Your task to perform on an android device: toggle show notifications on the lock screen Image 0: 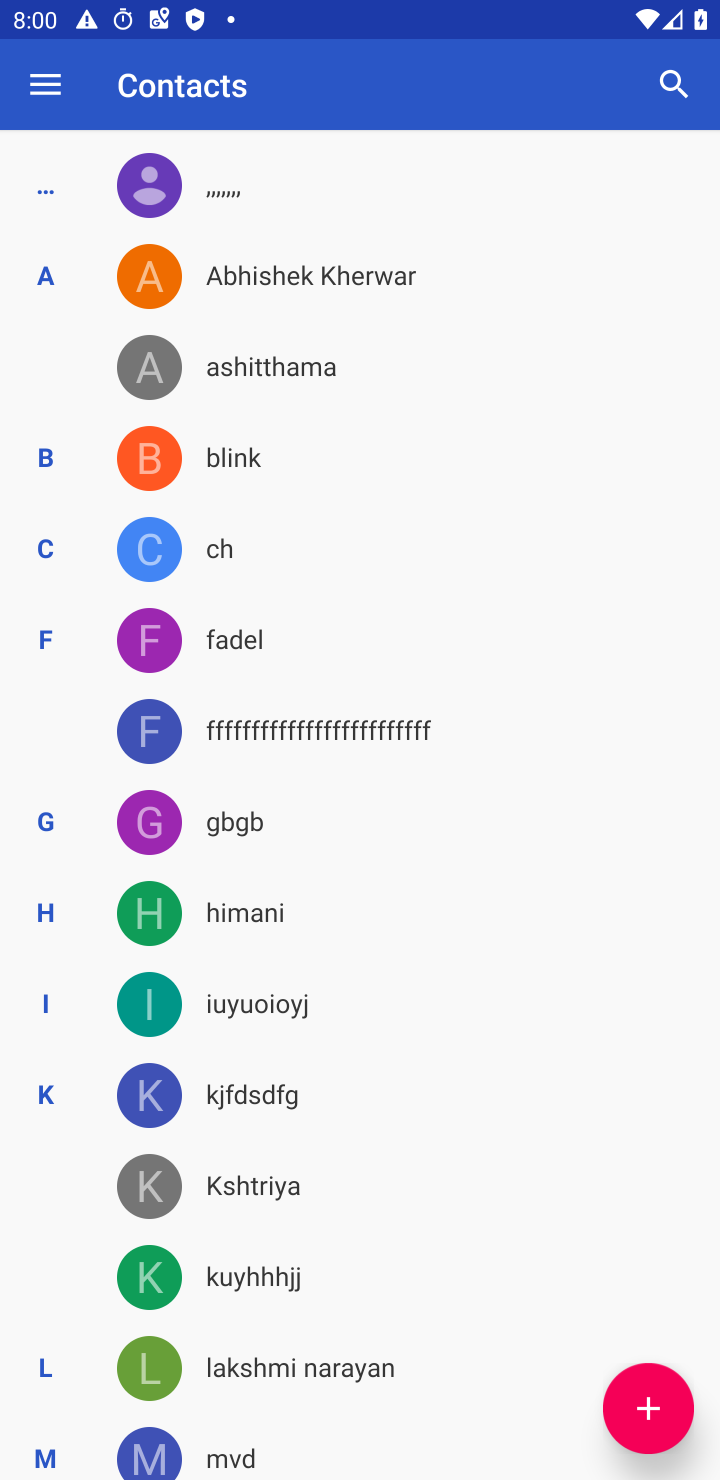
Step 0: press home button
Your task to perform on an android device: toggle show notifications on the lock screen Image 1: 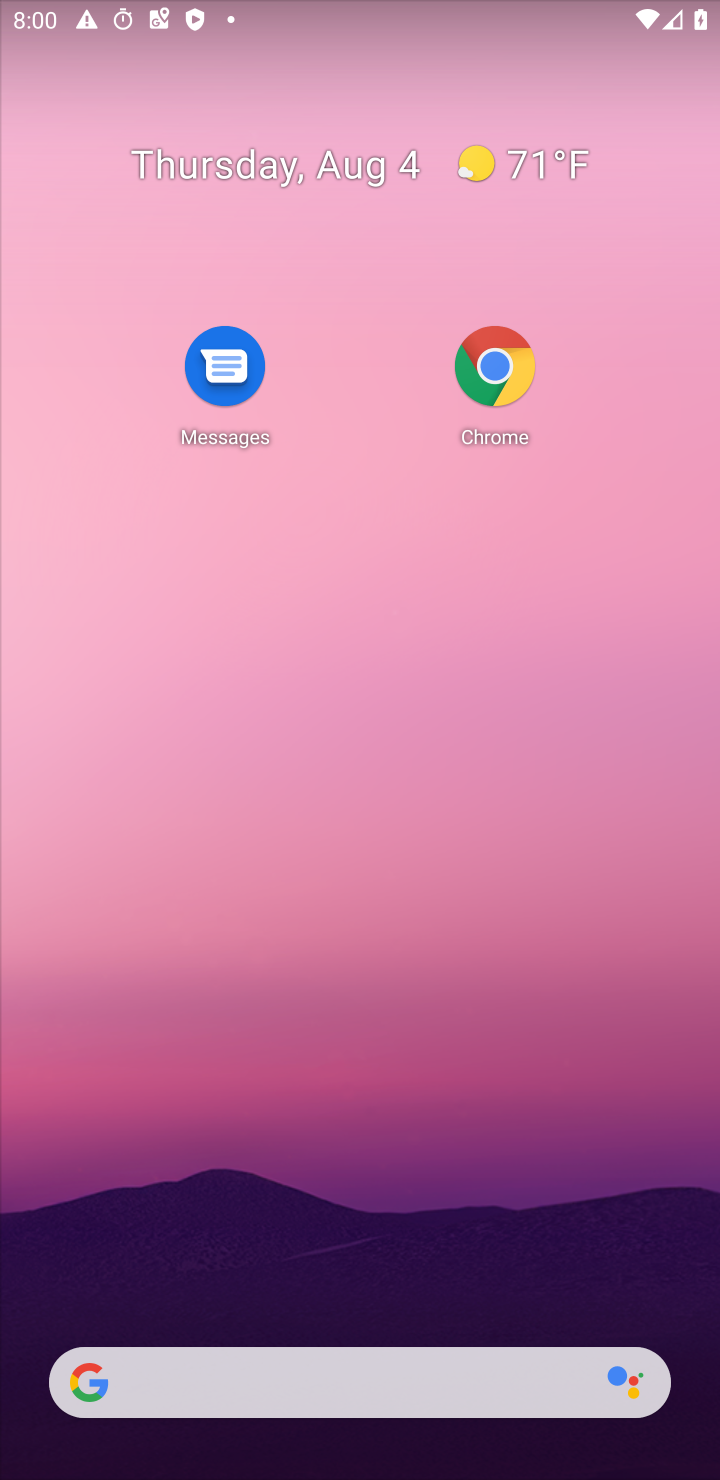
Step 1: drag from (468, 1413) to (445, 277)
Your task to perform on an android device: toggle show notifications on the lock screen Image 2: 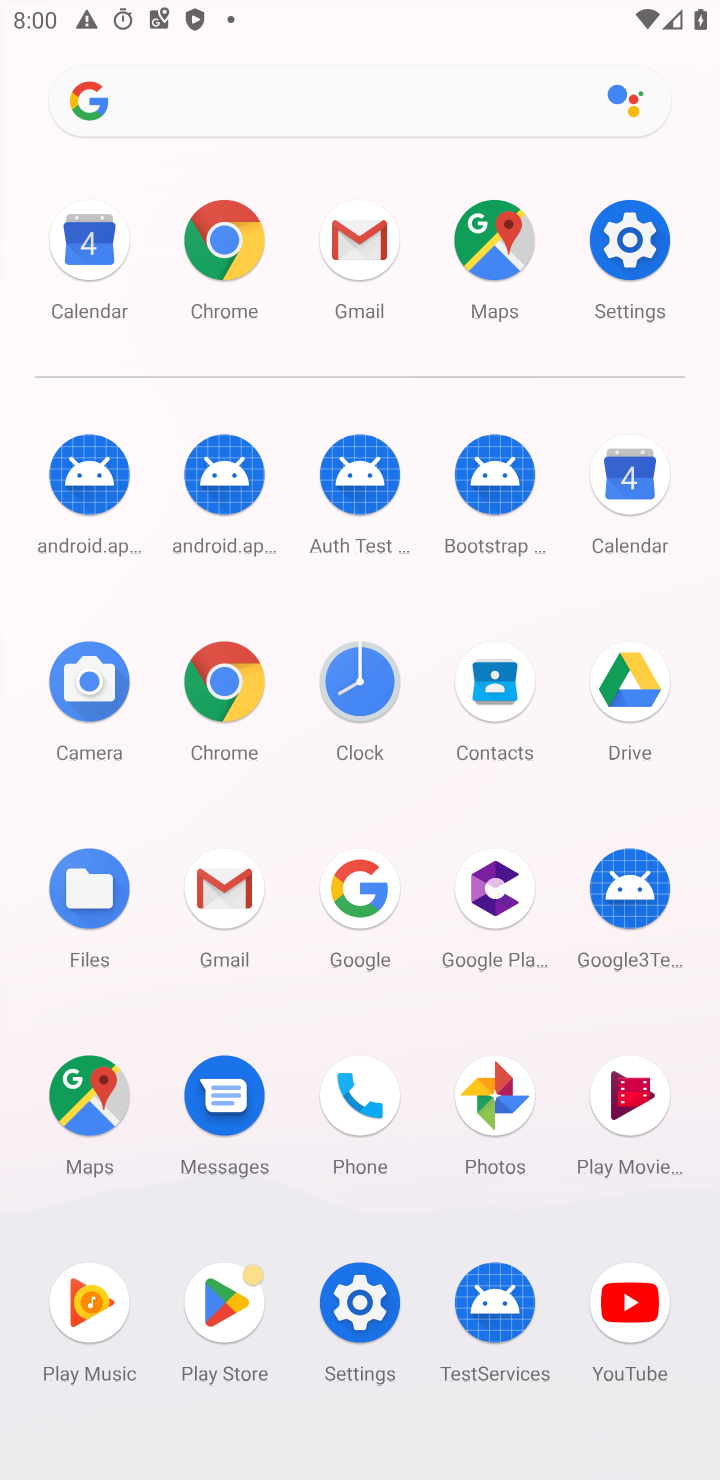
Step 2: click (348, 1290)
Your task to perform on an android device: toggle show notifications on the lock screen Image 3: 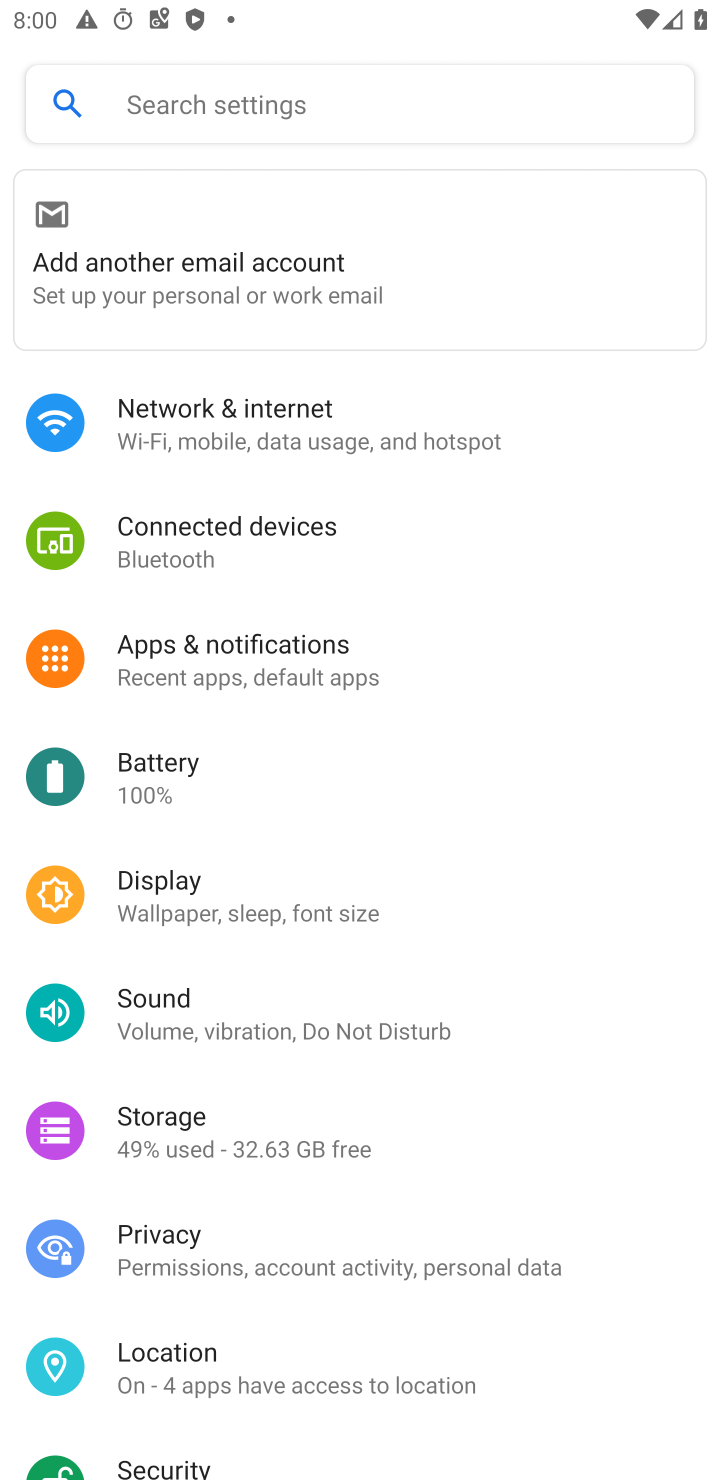
Step 3: click (214, 106)
Your task to perform on an android device: toggle show notifications on the lock screen Image 4: 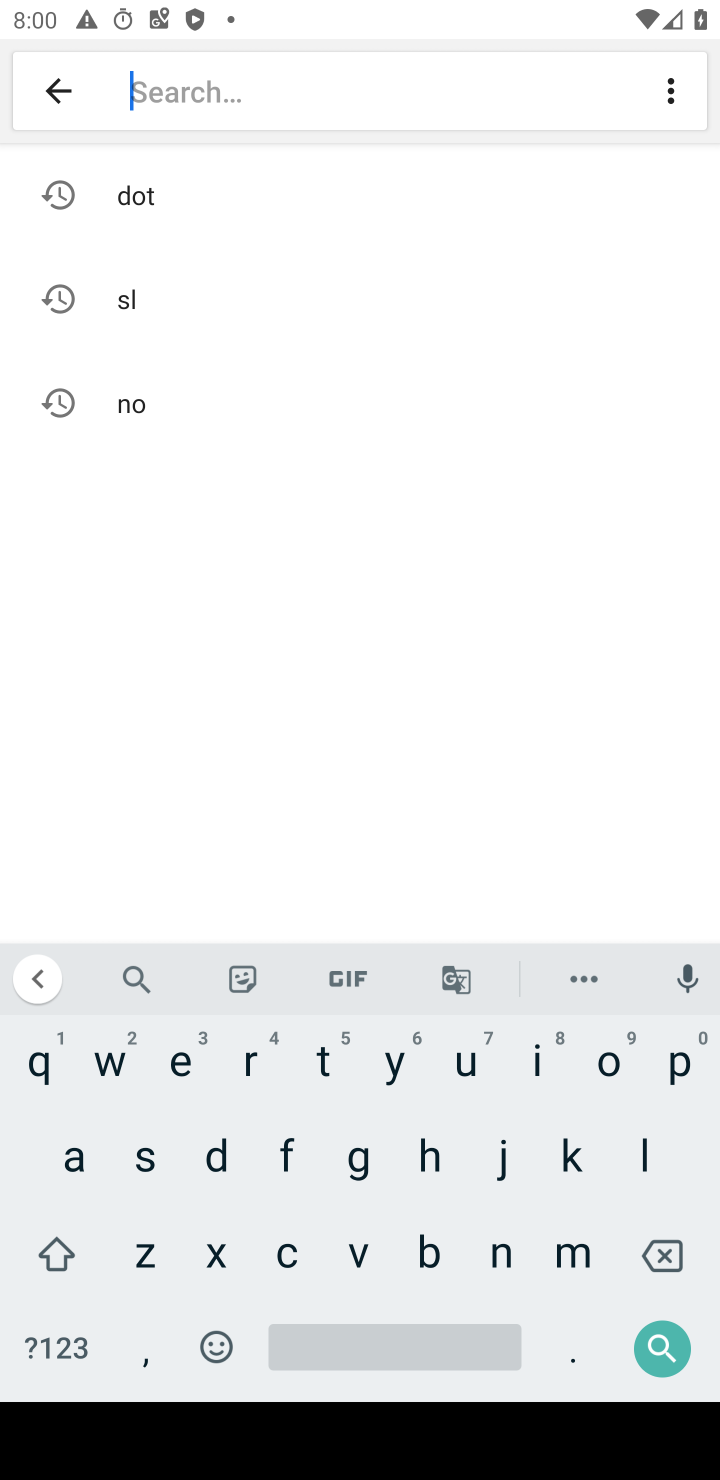
Step 4: click (192, 385)
Your task to perform on an android device: toggle show notifications on the lock screen Image 5: 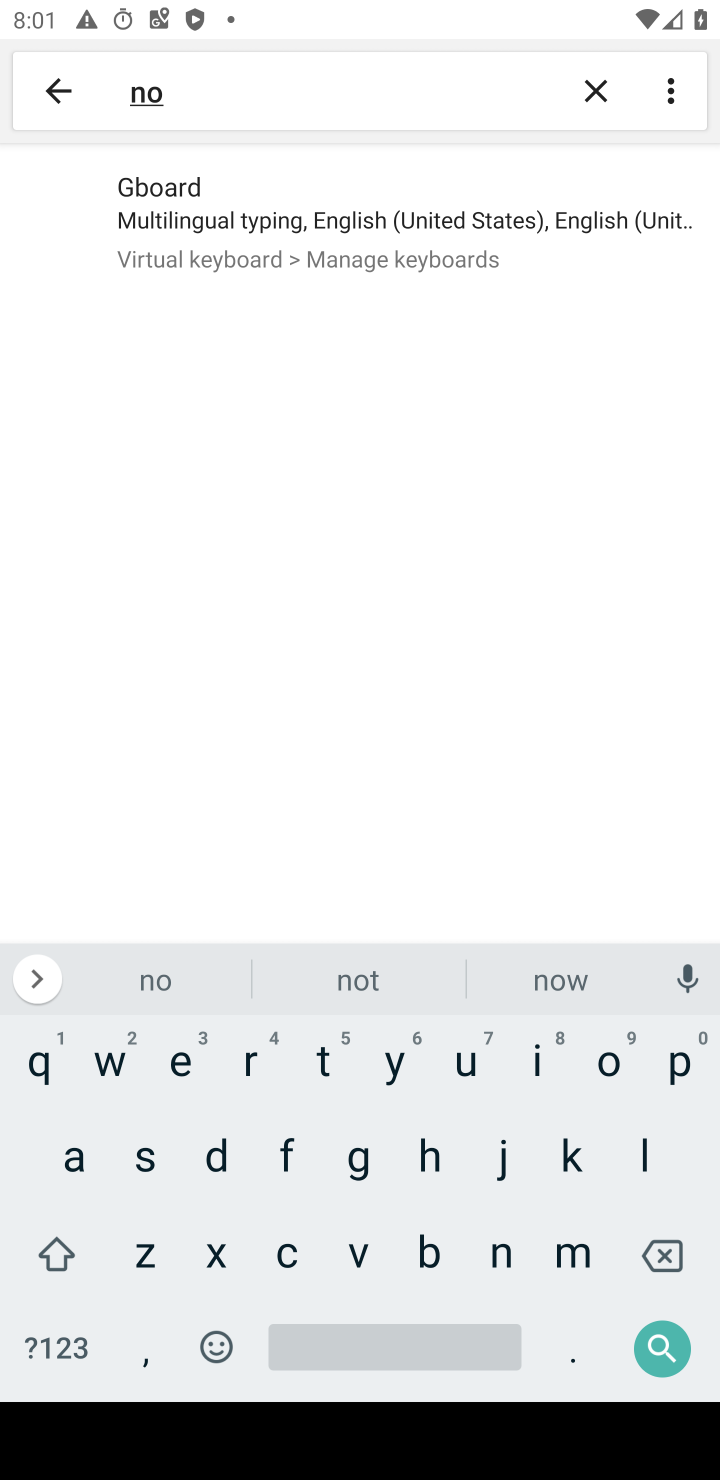
Step 5: click (332, 1067)
Your task to perform on an android device: toggle show notifications on the lock screen Image 6: 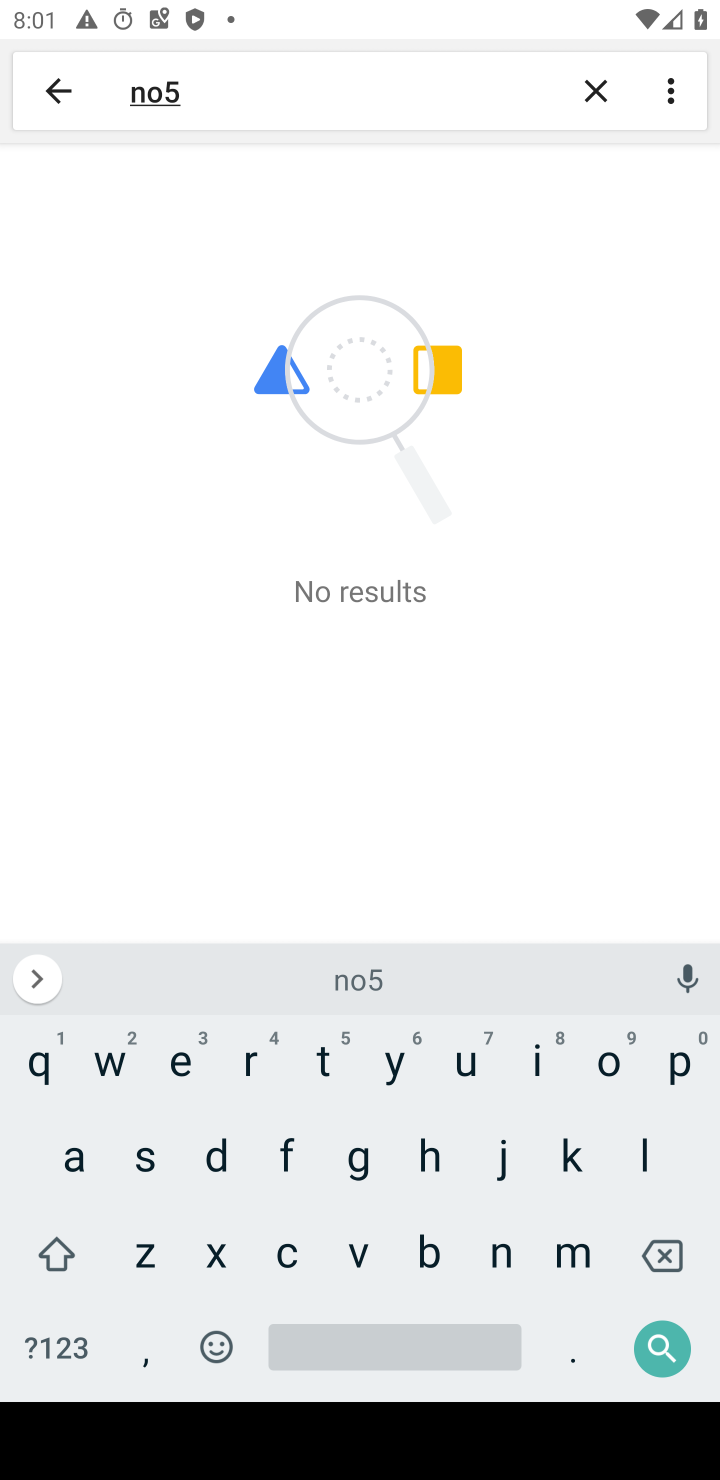
Step 6: click (686, 1254)
Your task to perform on an android device: toggle show notifications on the lock screen Image 7: 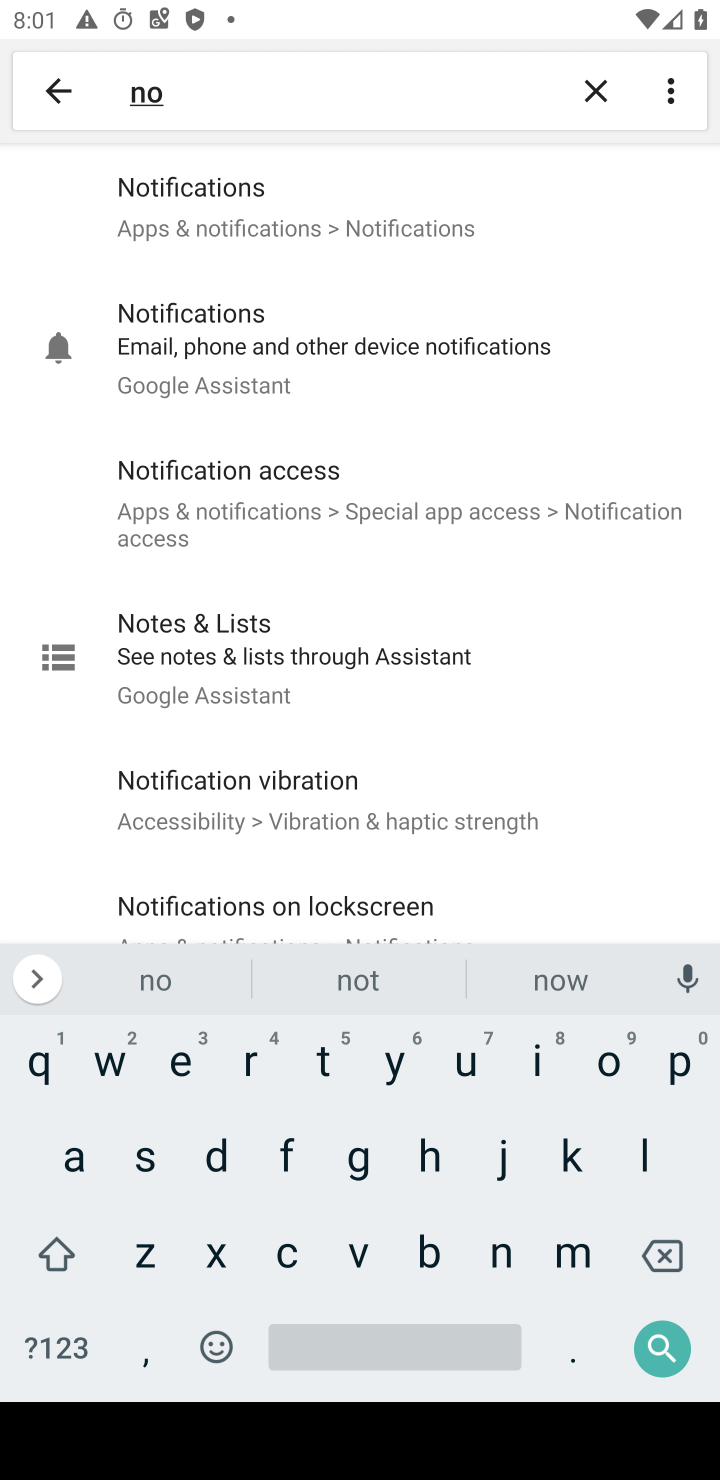
Step 7: click (287, 216)
Your task to perform on an android device: toggle show notifications on the lock screen Image 8: 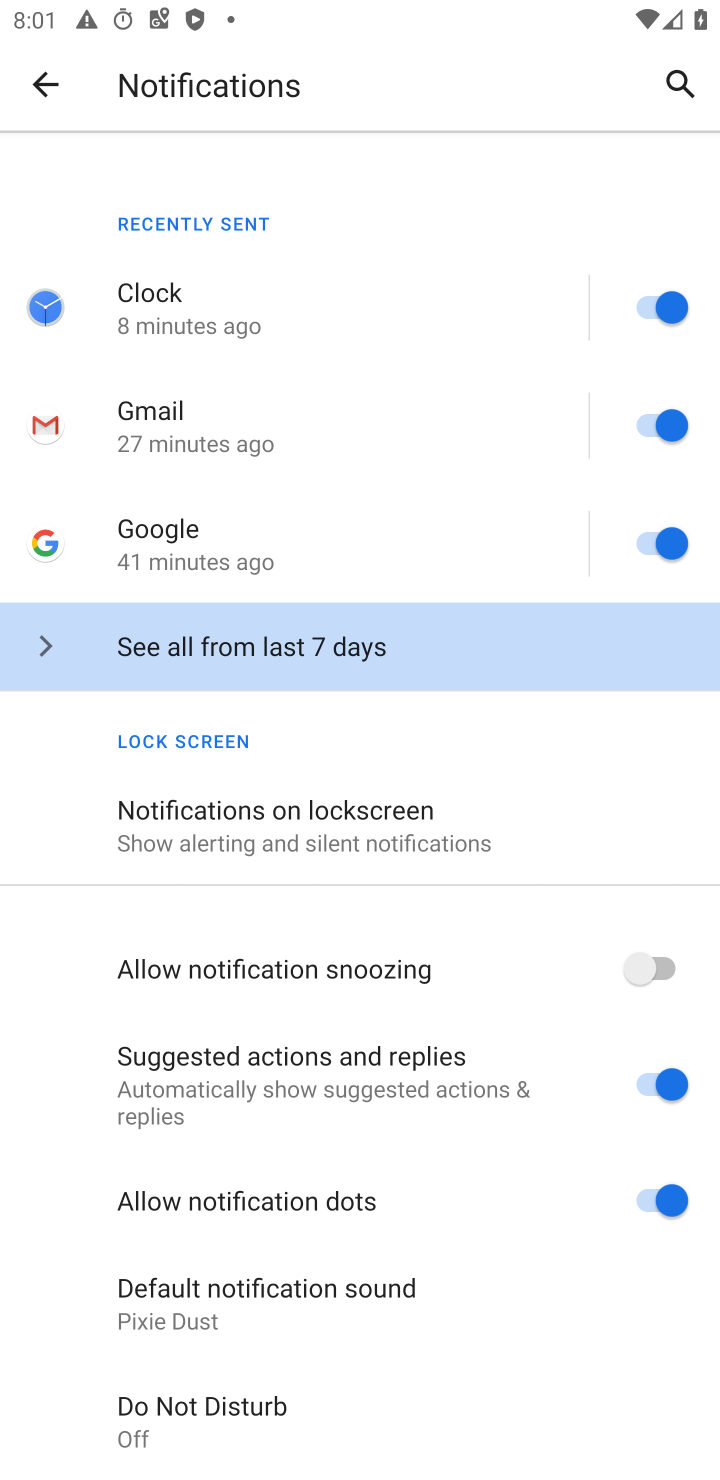
Step 8: click (388, 829)
Your task to perform on an android device: toggle show notifications on the lock screen Image 9: 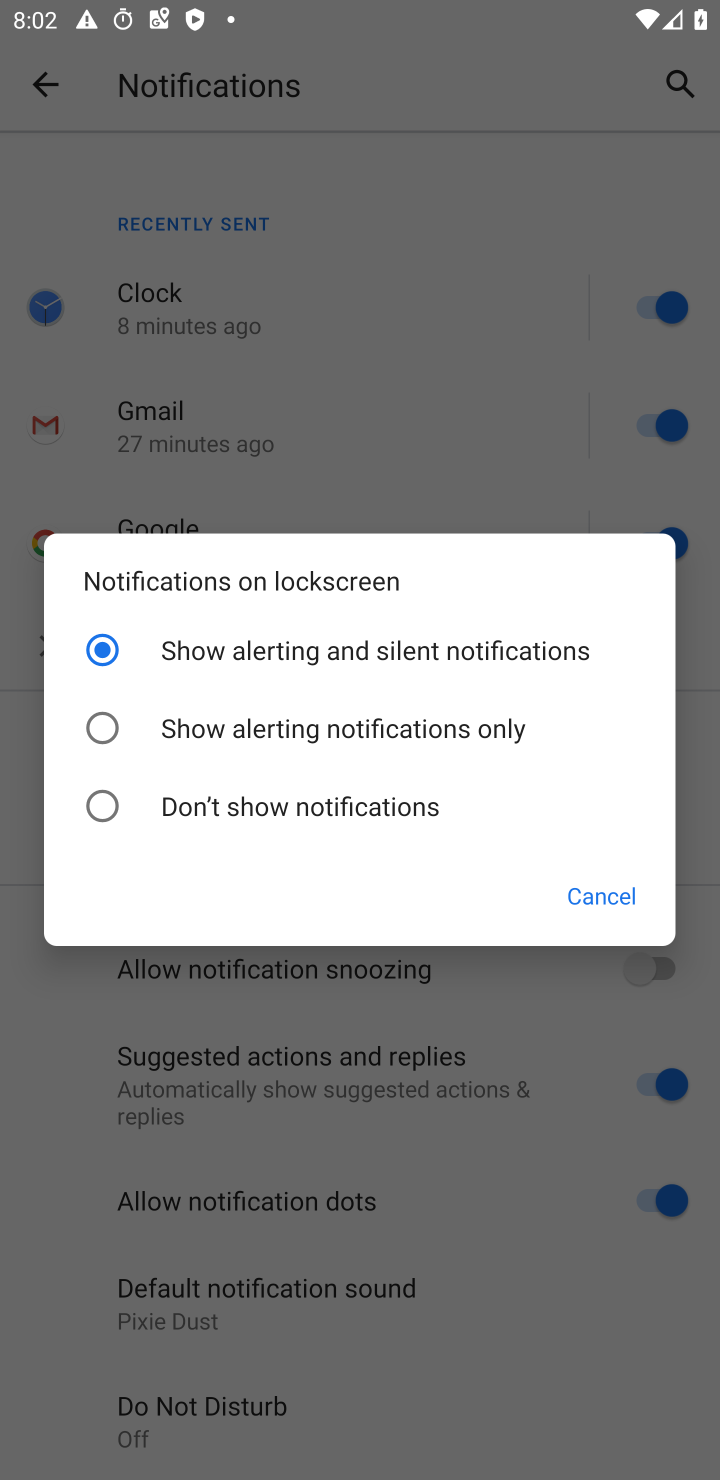
Step 9: task complete